Your task to perform on an android device: Toggle the flashlight Image 0: 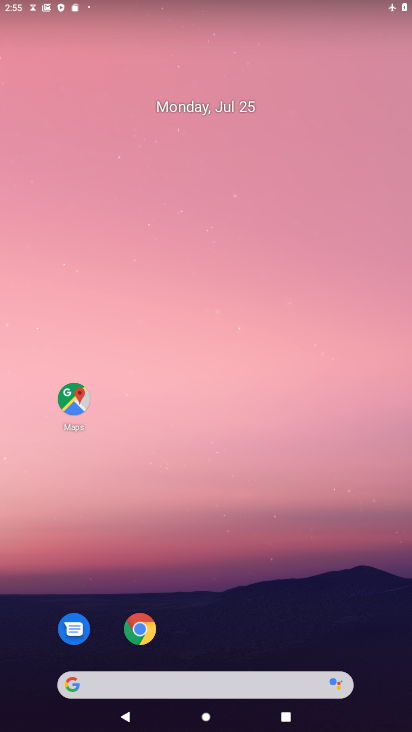
Step 0: drag from (333, 1) to (321, 311)
Your task to perform on an android device: Toggle the flashlight Image 1: 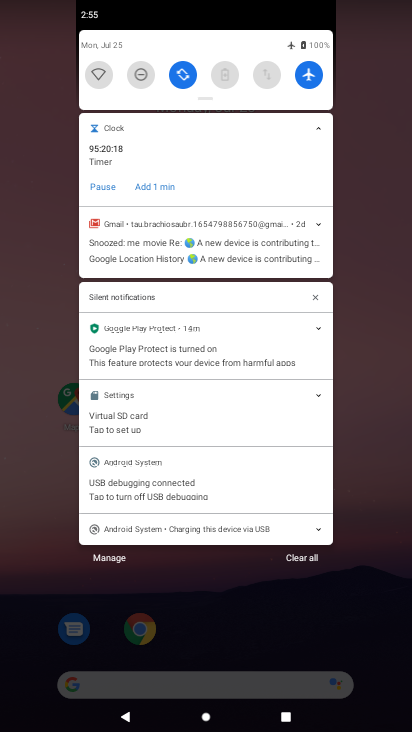
Step 1: drag from (209, 91) to (246, 284)
Your task to perform on an android device: Toggle the flashlight Image 2: 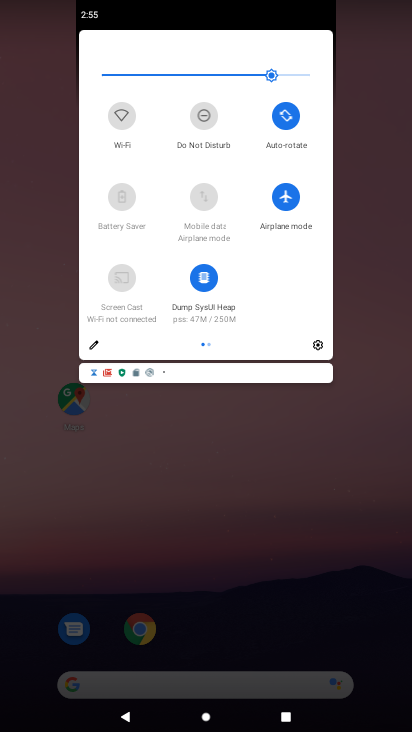
Step 2: click (95, 343)
Your task to perform on an android device: Toggle the flashlight Image 3: 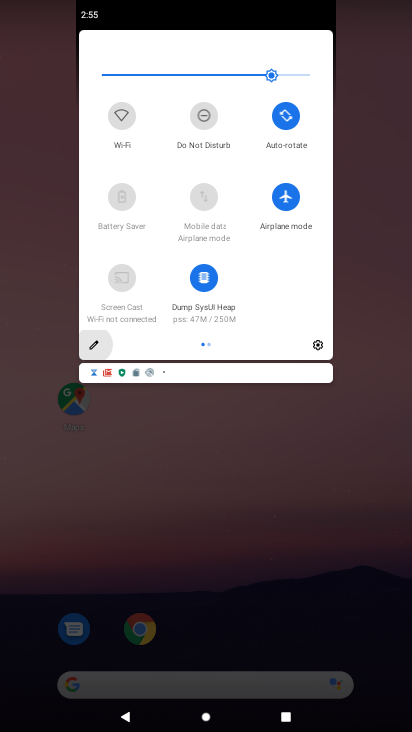
Step 3: click (90, 344)
Your task to perform on an android device: Toggle the flashlight Image 4: 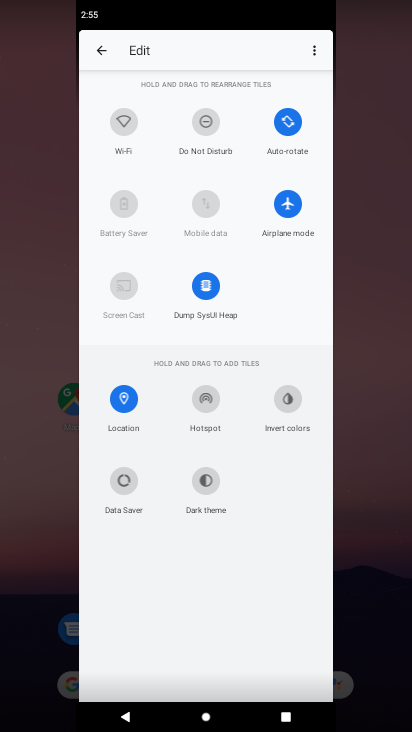
Step 4: task complete